Your task to perform on an android device: What's the weather today? Image 0: 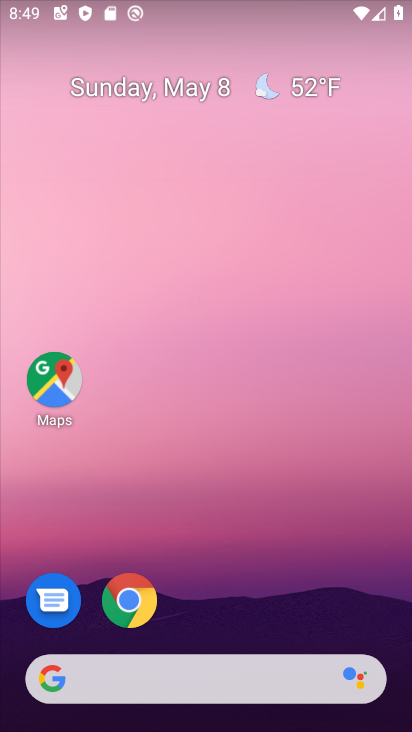
Step 0: drag from (202, 505) to (229, 25)
Your task to perform on an android device: What's the weather today? Image 1: 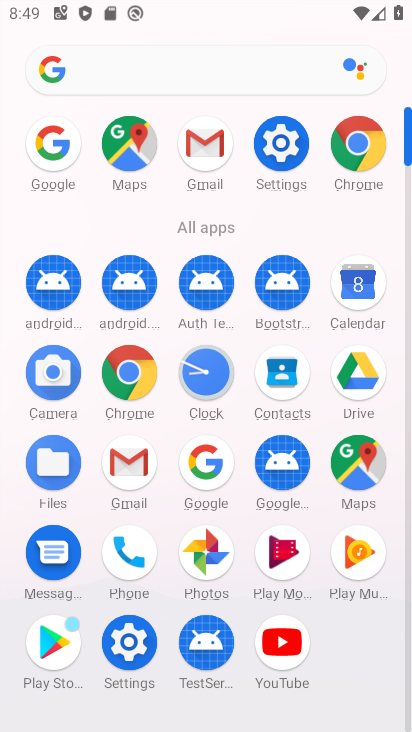
Step 1: click (50, 162)
Your task to perform on an android device: What's the weather today? Image 2: 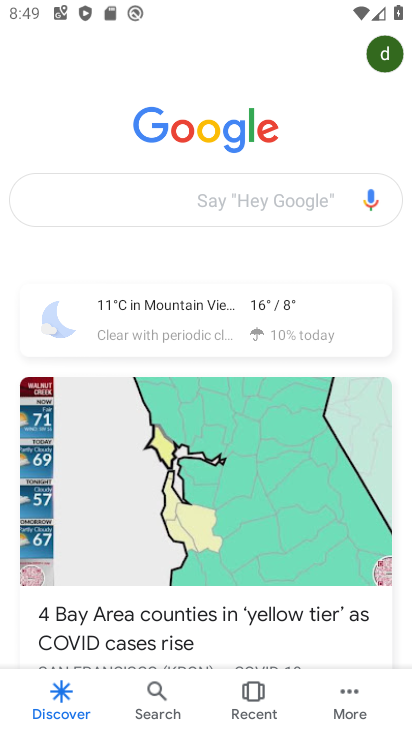
Step 2: click (189, 190)
Your task to perform on an android device: What's the weather today? Image 3: 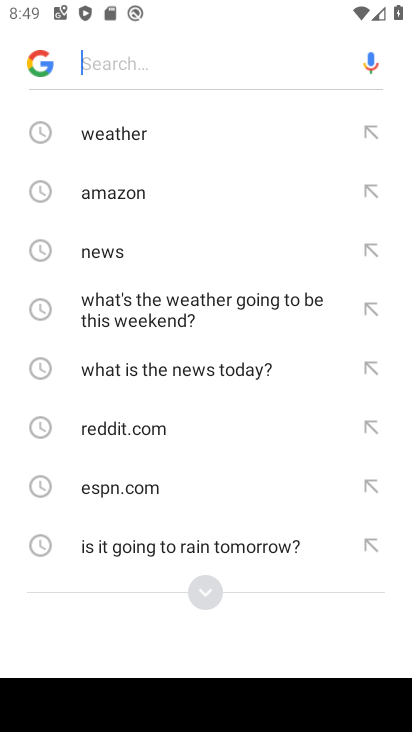
Step 3: click (68, 142)
Your task to perform on an android device: What's the weather today? Image 4: 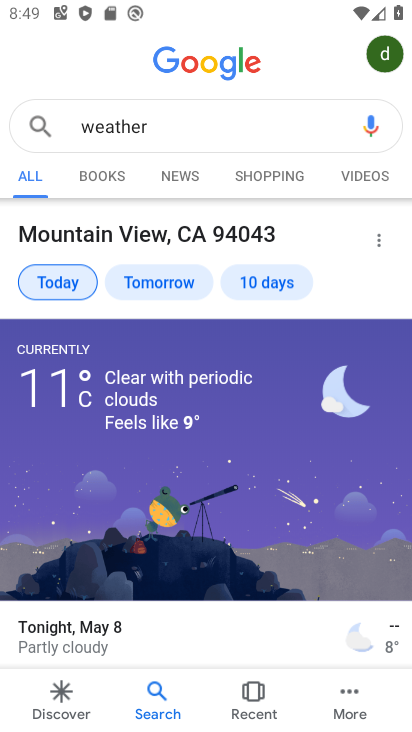
Step 4: task complete